Your task to perform on an android device: Open battery settings Image 0: 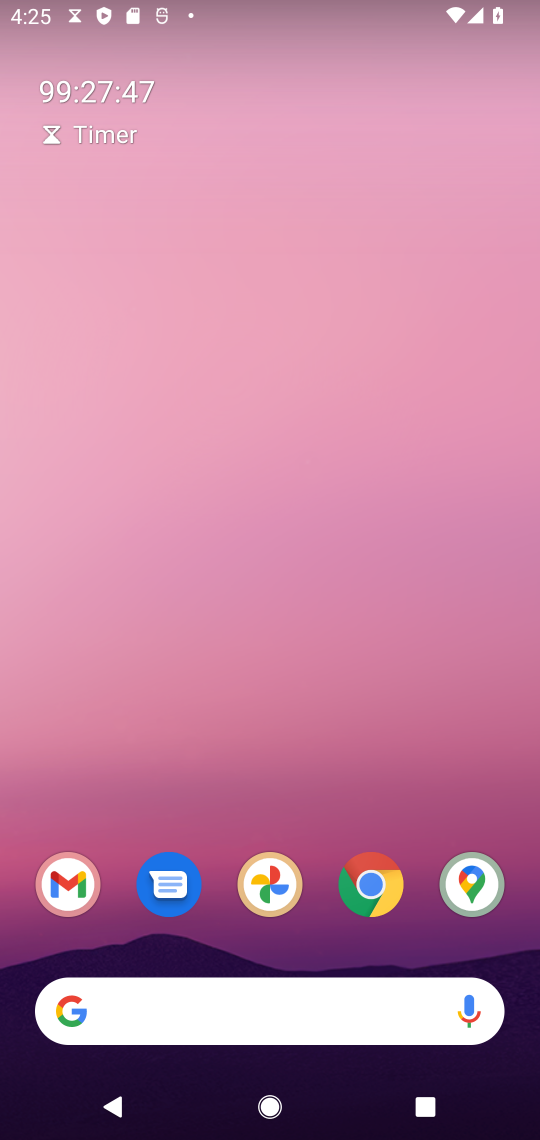
Step 0: drag from (439, 950) to (433, 491)
Your task to perform on an android device: Open battery settings Image 1: 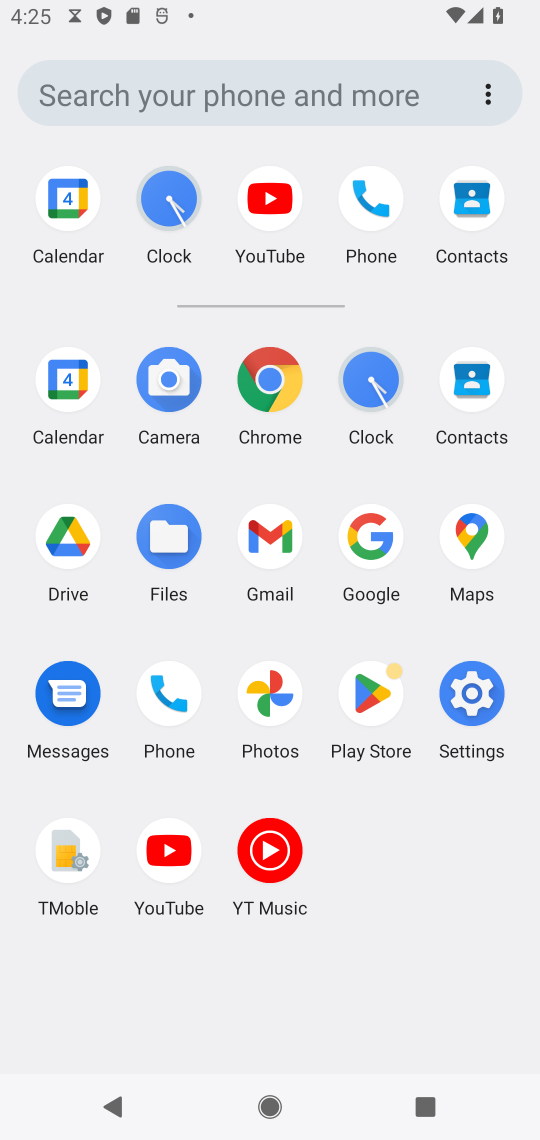
Step 1: click (460, 683)
Your task to perform on an android device: Open battery settings Image 2: 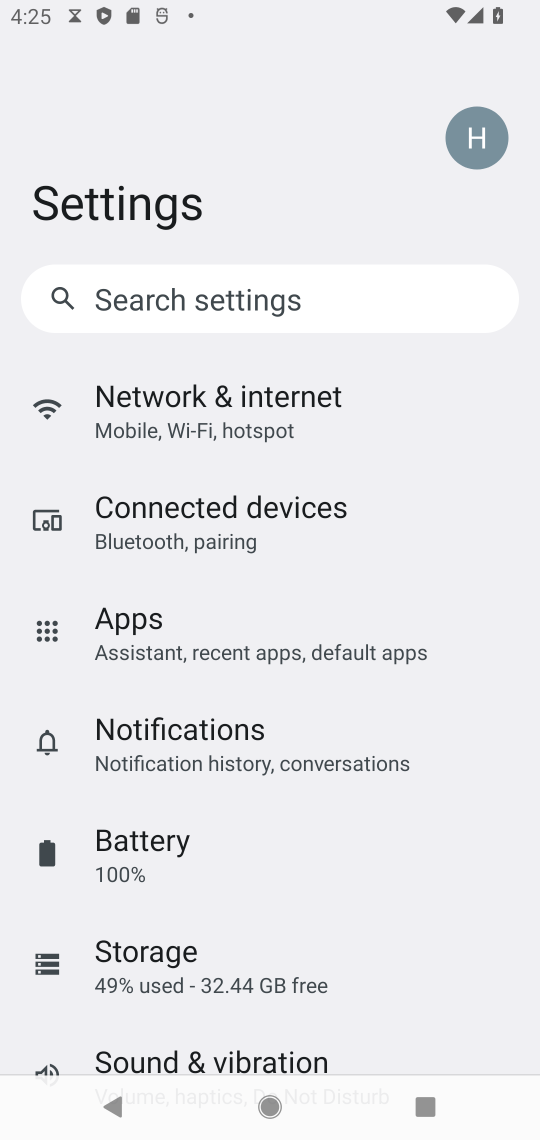
Step 2: click (155, 843)
Your task to perform on an android device: Open battery settings Image 3: 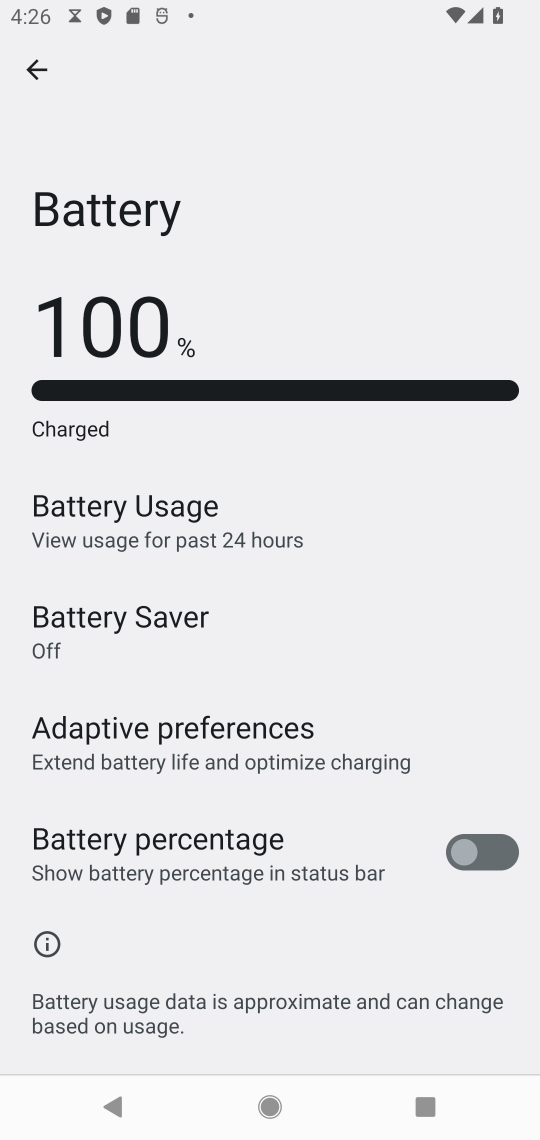
Step 3: task complete